Your task to perform on an android device: Open Google Chrome and open the bookmarks view Image 0: 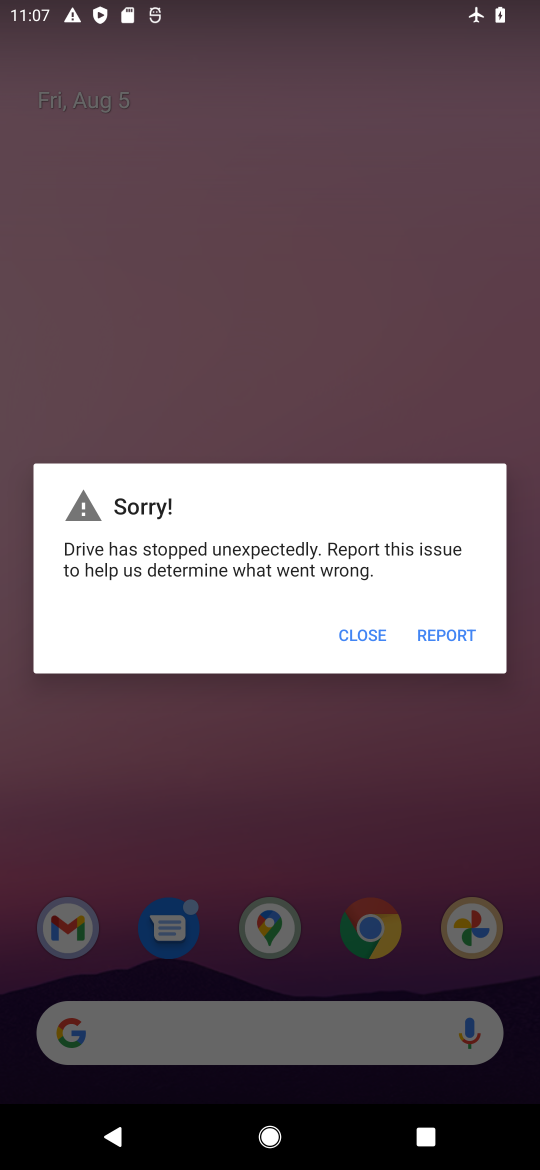
Step 0: click (366, 639)
Your task to perform on an android device: Open Google Chrome and open the bookmarks view Image 1: 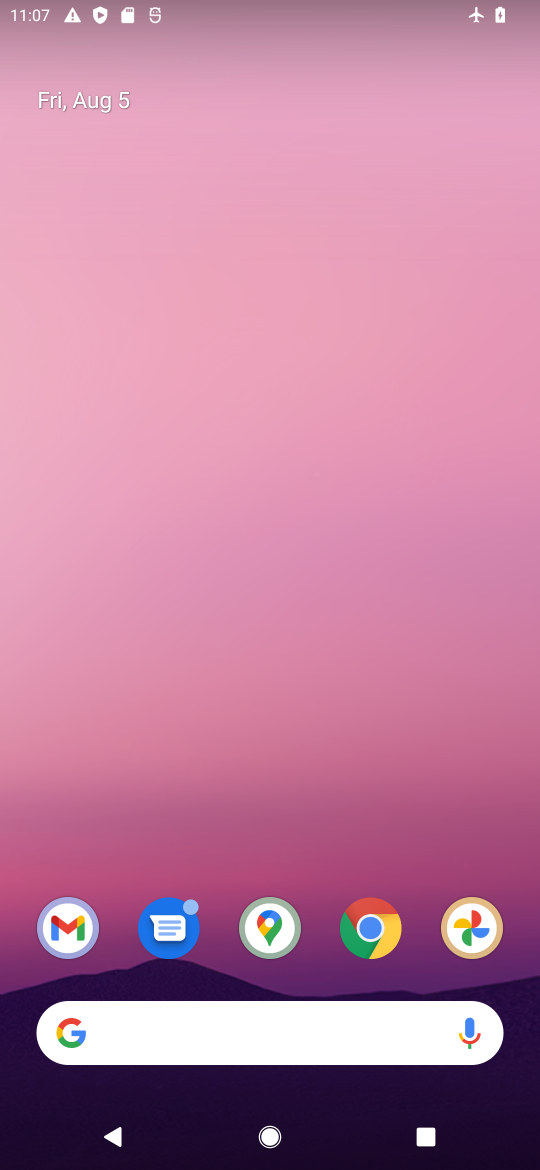
Step 1: click (352, 931)
Your task to perform on an android device: Open Google Chrome and open the bookmarks view Image 2: 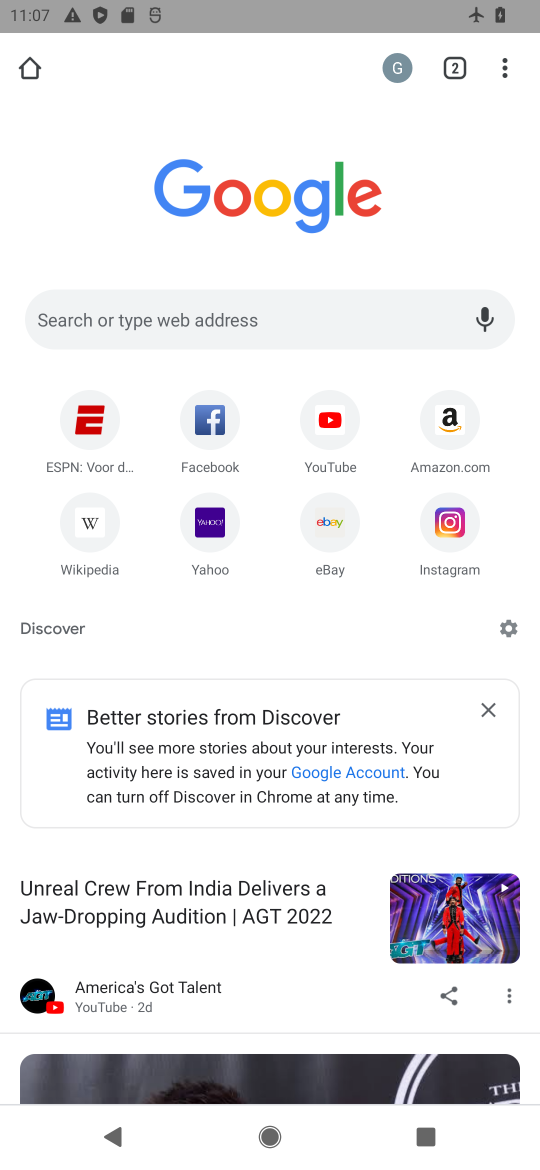
Step 2: click (496, 71)
Your task to perform on an android device: Open Google Chrome and open the bookmarks view Image 3: 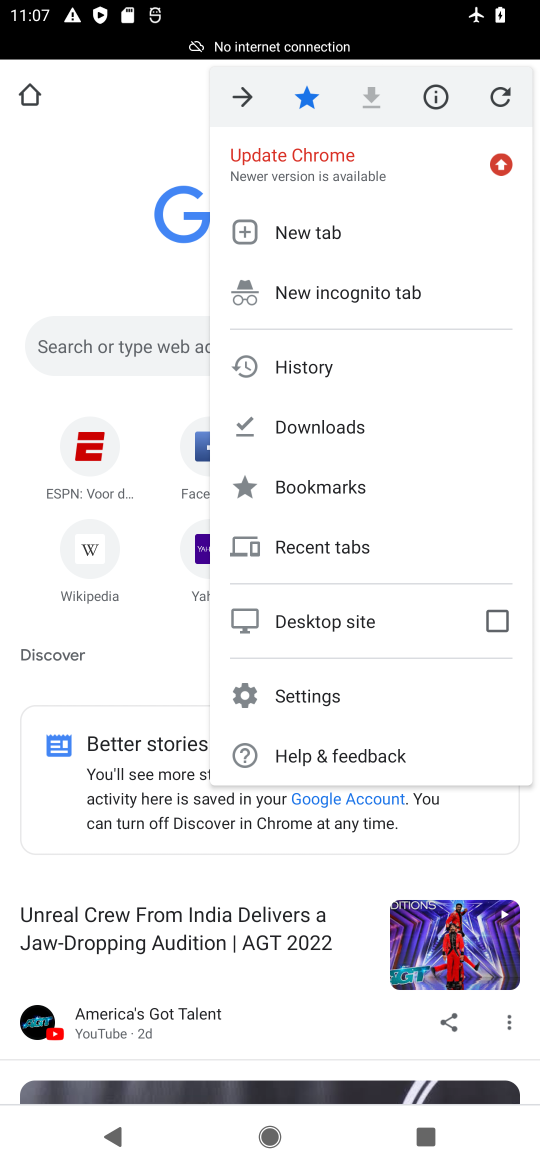
Step 3: click (308, 489)
Your task to perform on an android device: Open Google Chrome and open the bookmarks view Image 4: 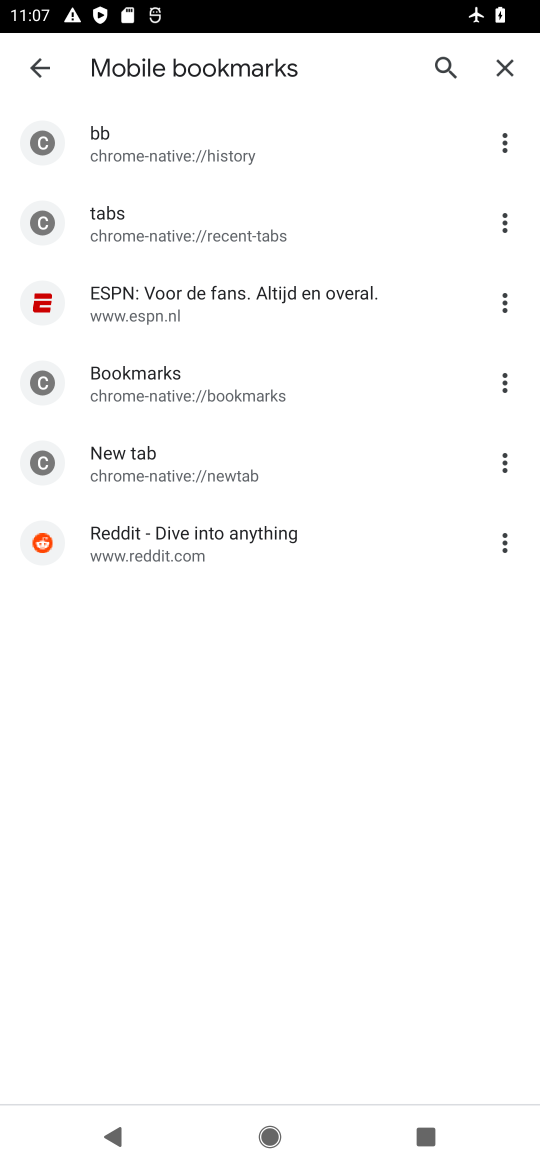
Step 4: task complete